Your task to perform on an android device: change notifications settings Image 0: 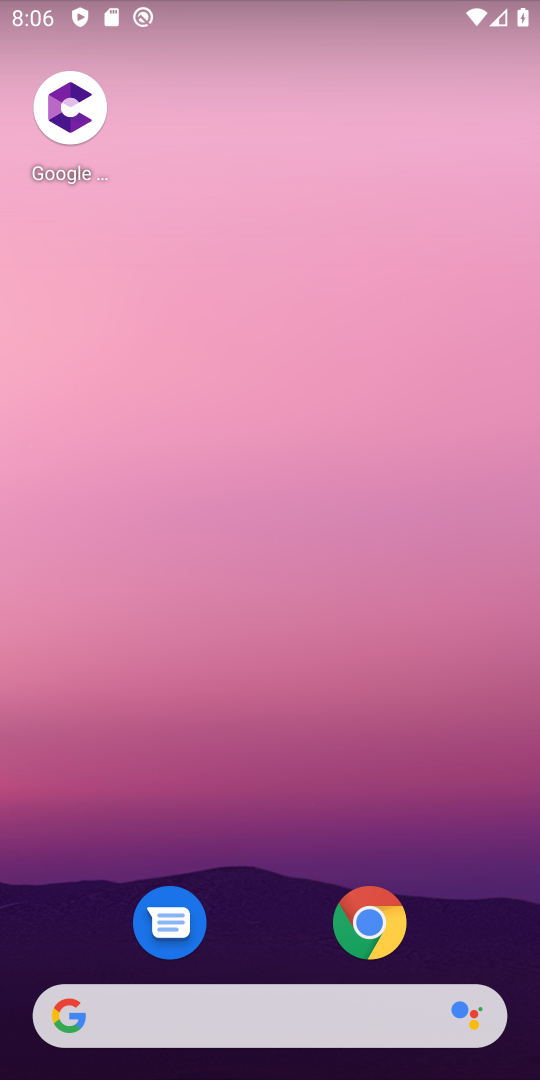
Step 0: drag from (386, 835) to (323, 169)
Your task to perform on an android device: change notifications settings Image 1: 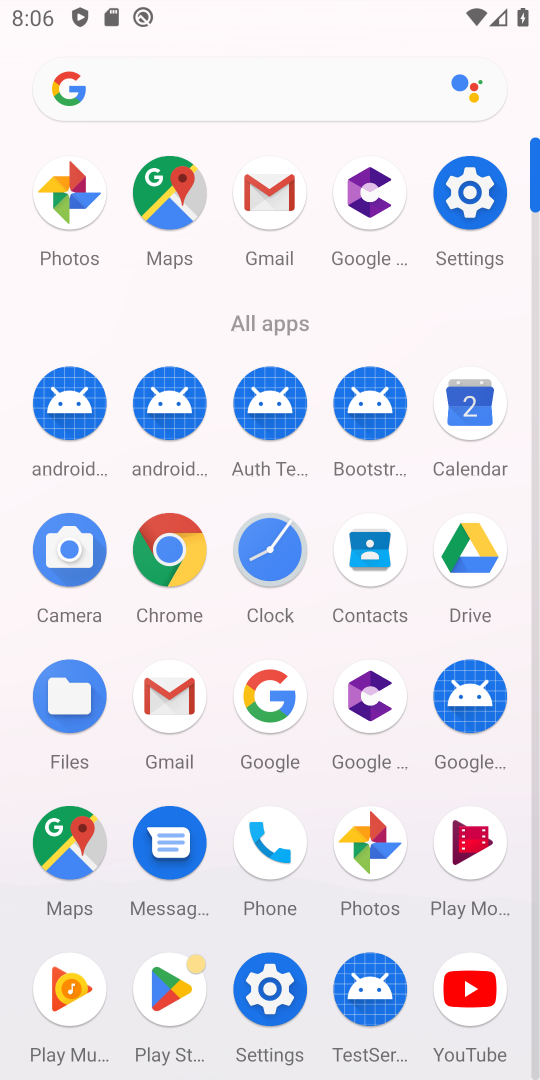
Step 1: click (273, 981)
Your task to perform on an android device: change notifications settings Image 2: 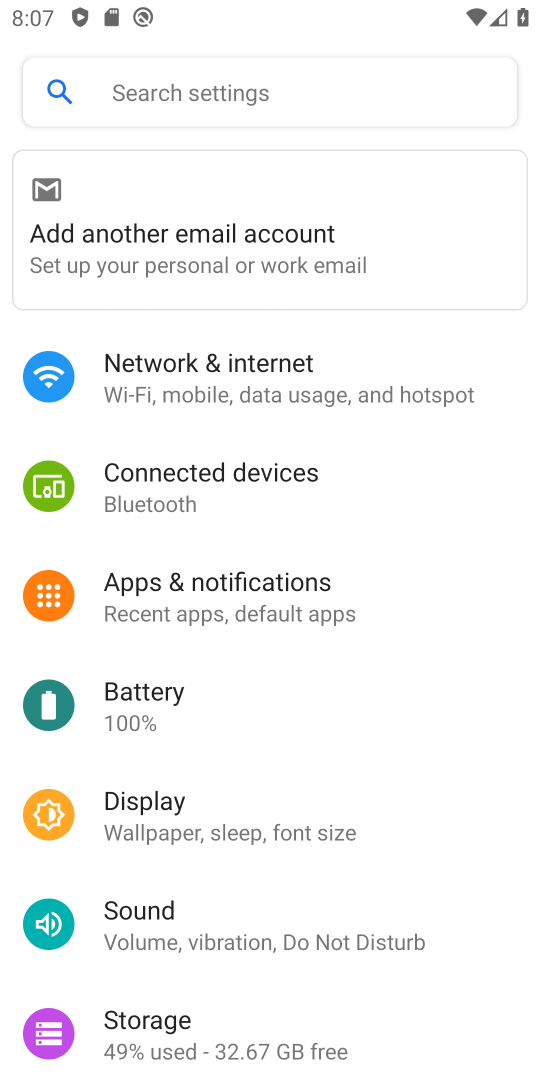
Step 2: click (239, 577)
Your task to perform on an android device: change notifications settings Image 3: 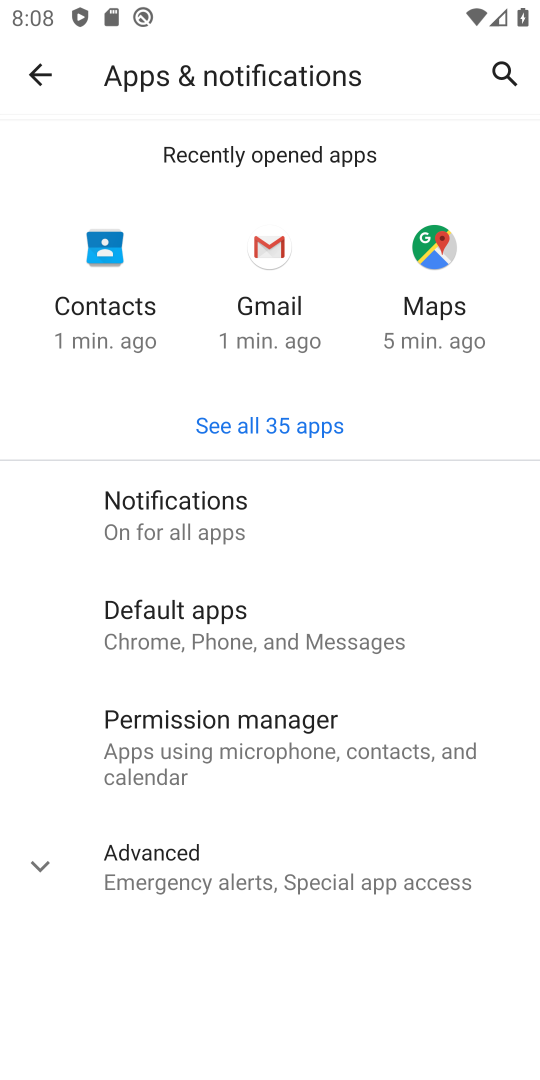
Step 3: click (229, 505)
Your task to perform on an android device: change notifications settings Image 4: 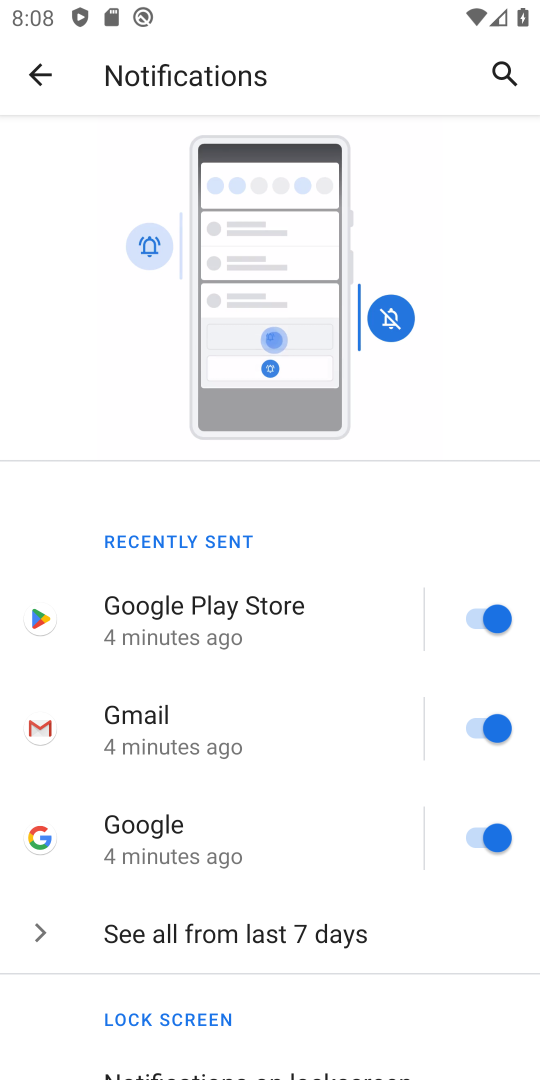
Step 4: drag from (324, 968) to (305, 655)
Your task to perform on an android device: change notifications settings Image 5: 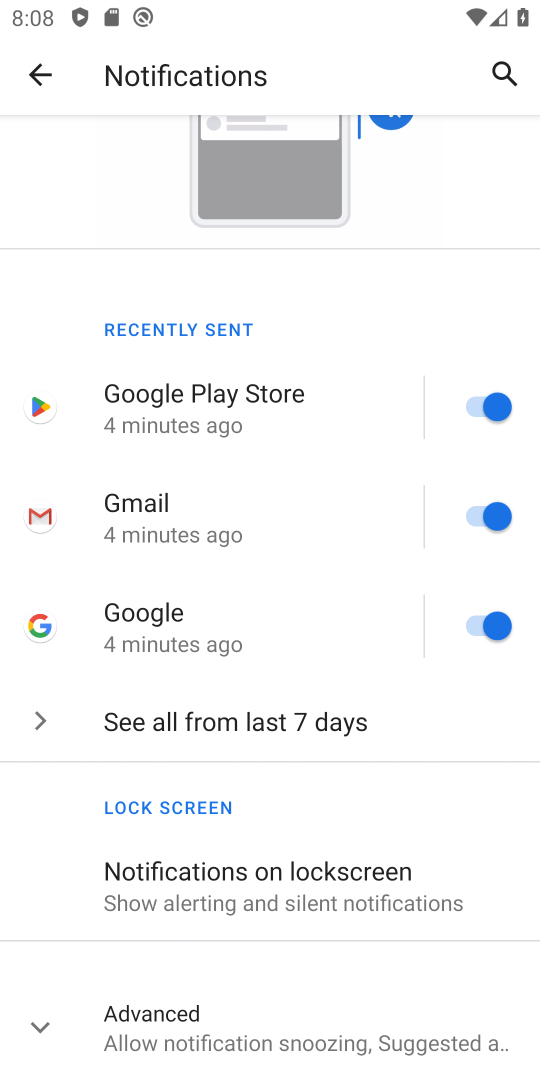
Step 5: click (189, 892)
Your task to perform on an android device: change notifications settings Image 6: 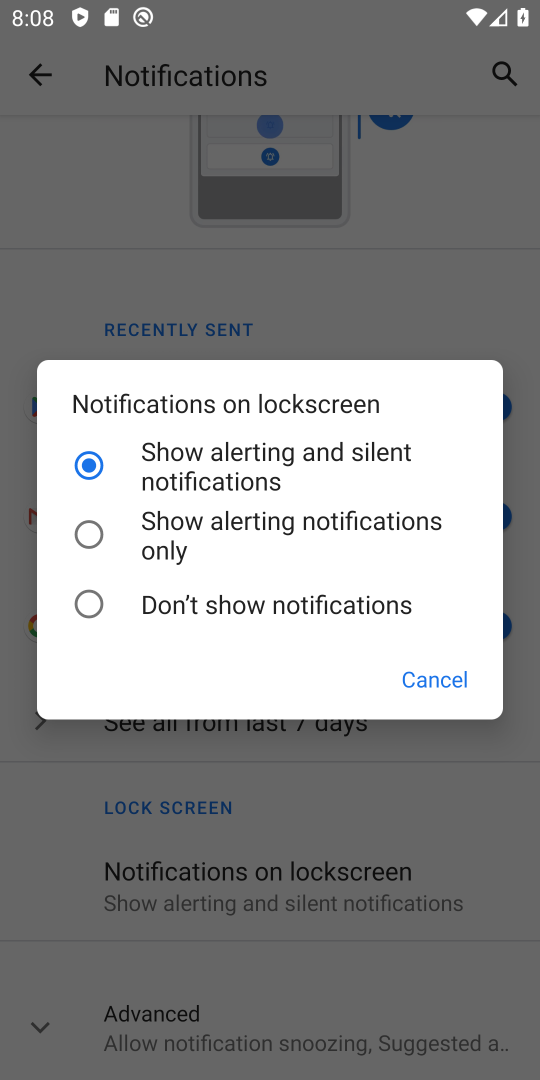
Step 6: click (294, 625)
Your task to perform on an android device: change notifications settings Image 7: 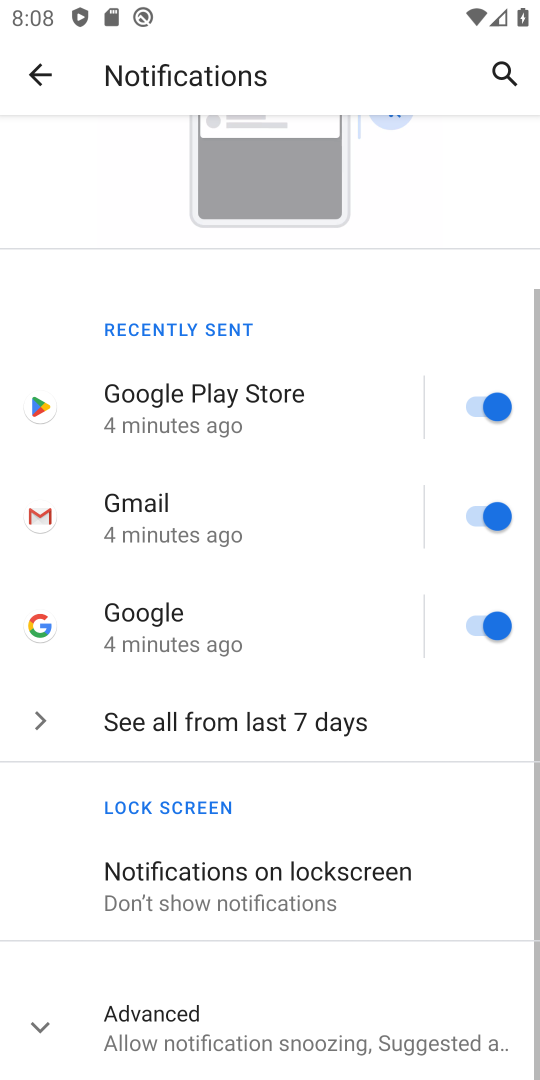
Step 7: click (329, 1025)
Your task to perform on an android device: change notifications settings Image 8: 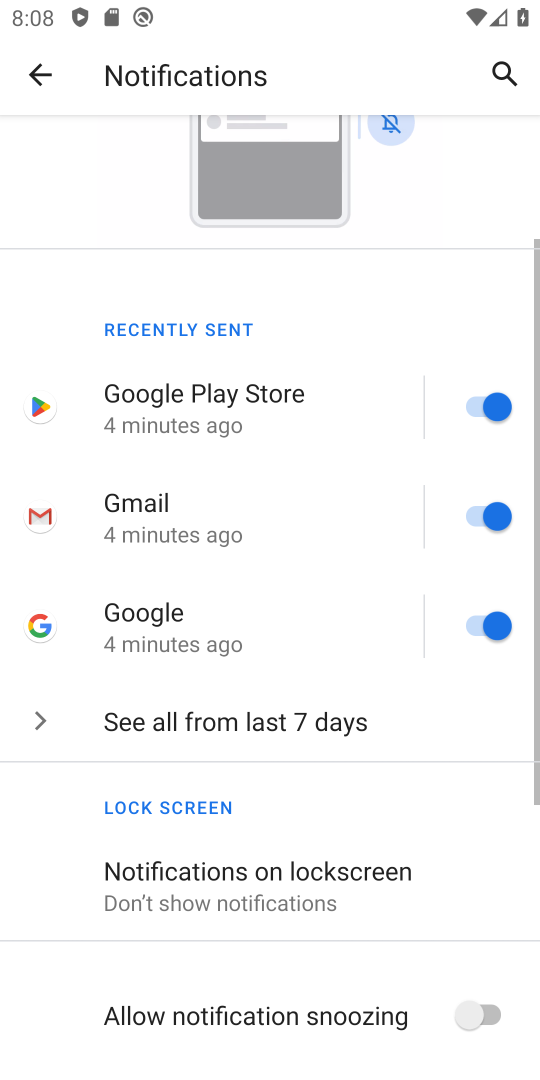
Step 8: drag from (244, 906) to (229, 294)
Your task to perform on an android device: change notifications settings Image 9: 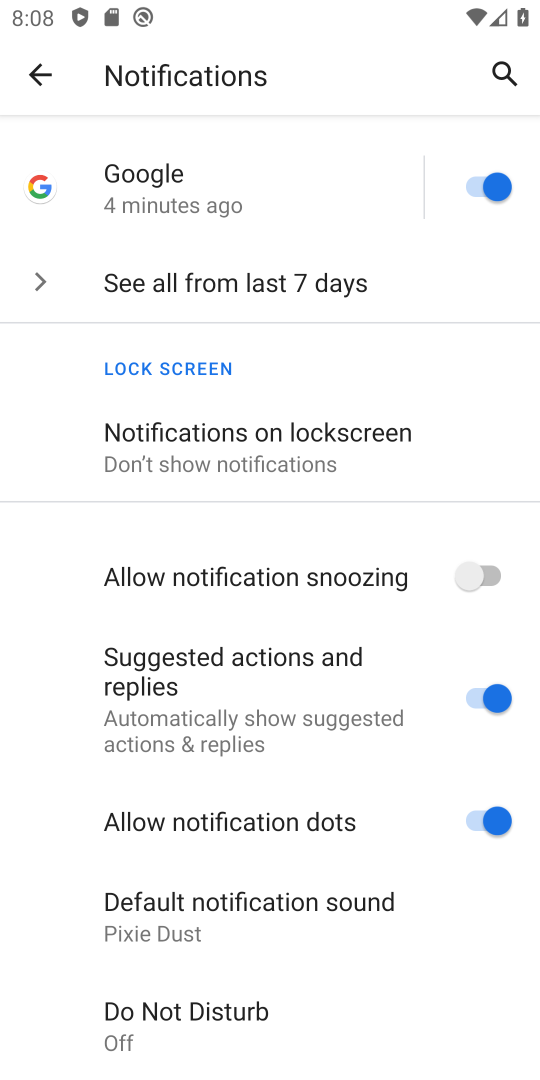
Step 9: click (483, 584)
Your task to perform on an android device: change notifications settings Image 10: 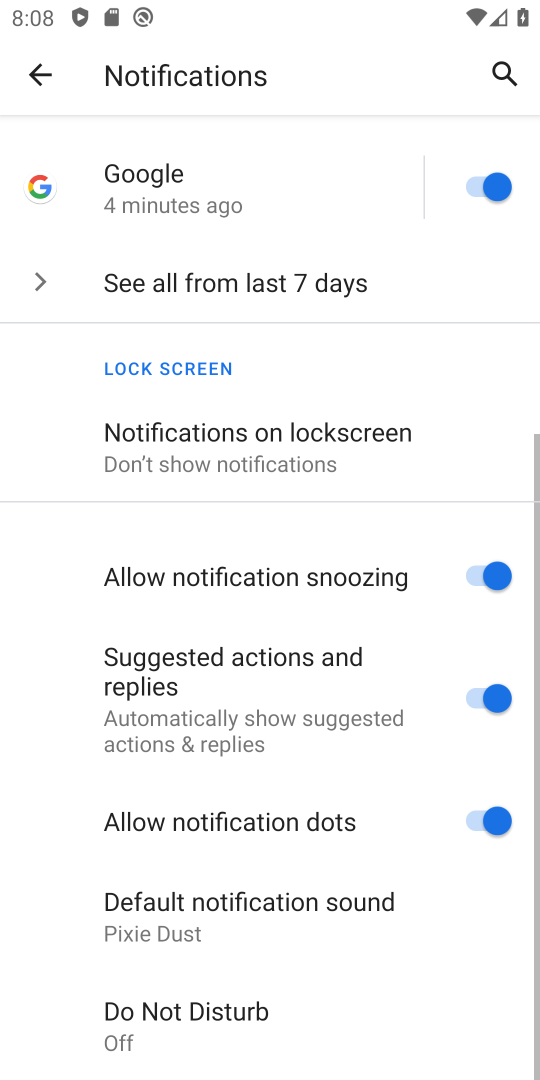
Step 10: task complete